Your task to perform on an android device: turn off improve location accuracy Image 0: 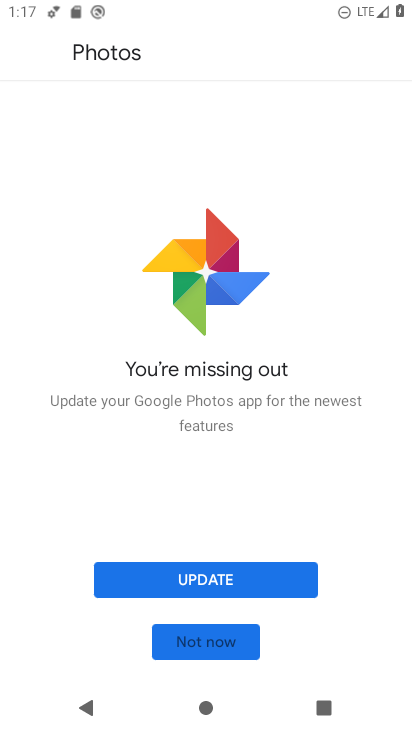
Step 0: press home button
Your task to perform on an android device: turn off improve location accuracy Image 1: 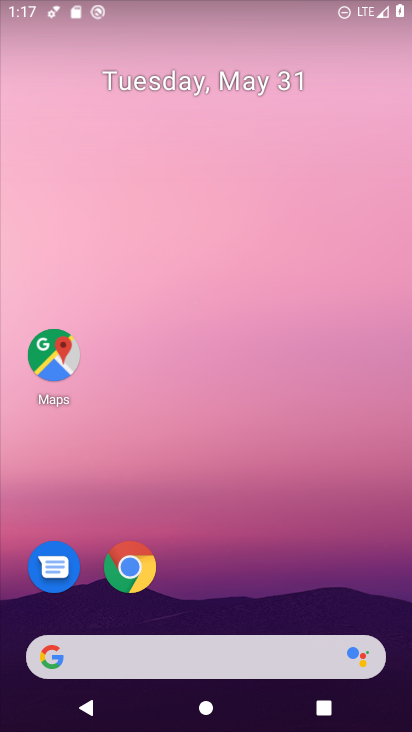
Step 1: drag from (198, 600) to (202, 130)
Your task to perform on an android device: turn off improve location accuracy Image 2: 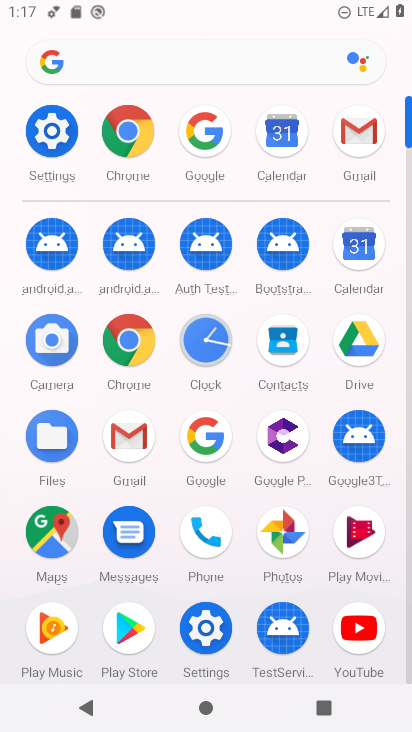
Step 2: click (66, 121)
Your task to perform on an android device: turn off improve location accuracy Image 3: 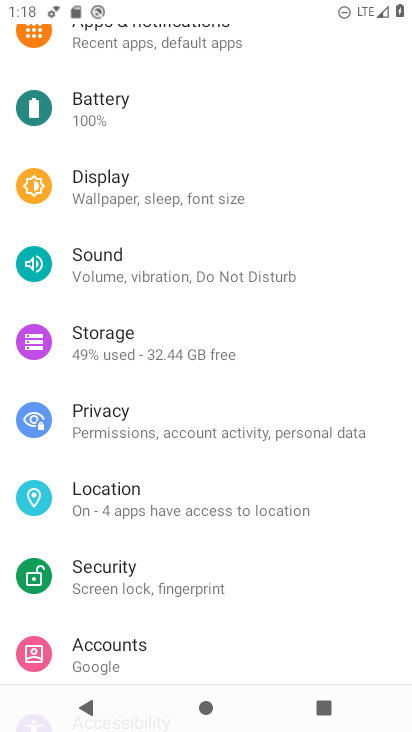
Step 3: click (174, 514)
Your task to perform on an android device: turn off improve location accuracy Image 4: 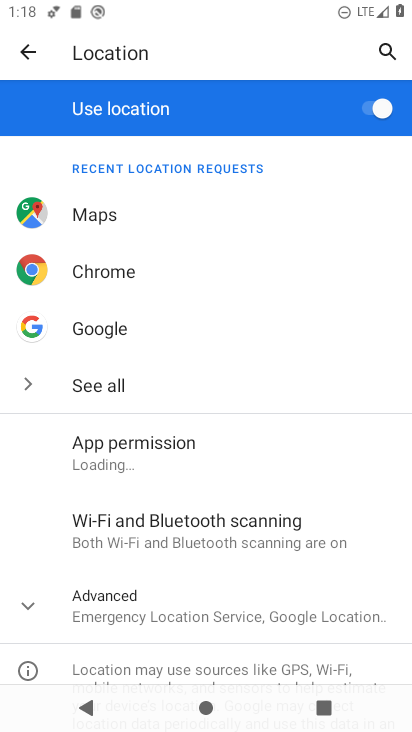
Step 4: drag from (198, 585) to (216, 374)
Your task to perform on an android device: turn off improve location accuracy Image 5: 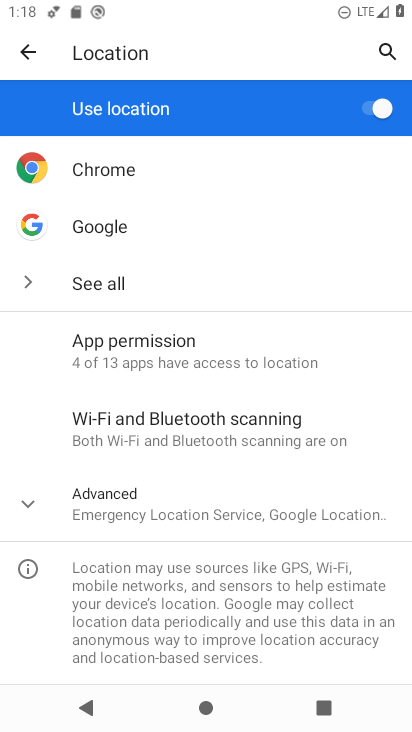
Step 5: click (192, 503)
Your task to perform on an android device: turn off improve location accuracy Image 6: 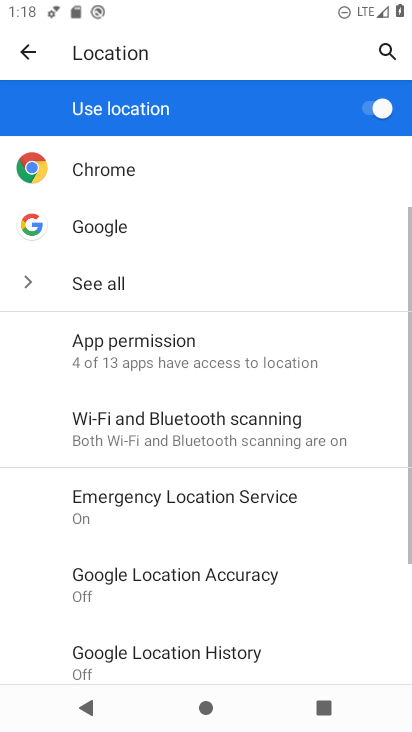
Step 6: drag from (203, 610) to (207, 432)
Your task to perform on an android device: turn off improve location accuracy Image 7: 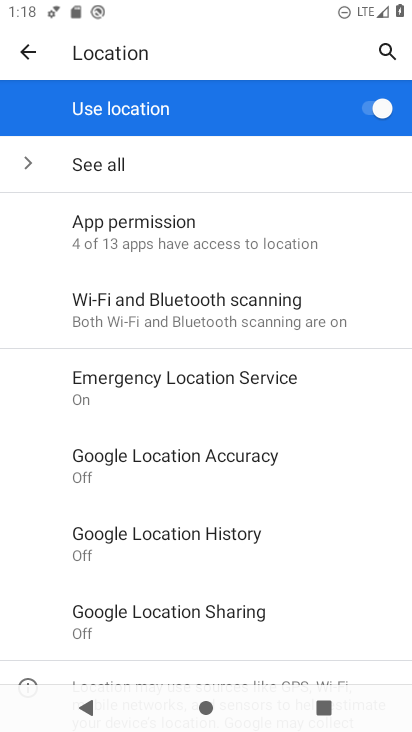
Step 7: click (195, 442)
Your task to perform on an android device: turn off improve location accuracy Image 8: 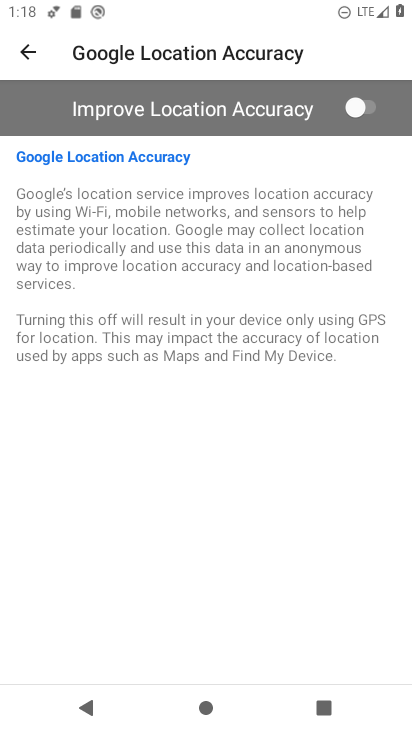
Step 8: task complete